Your task to perform on an android device: turn on airplane mode Image 0: 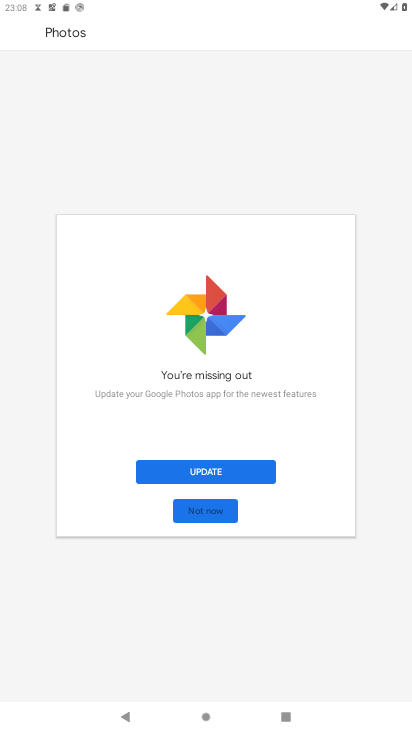
Step 0: press home button
Your task to perform on an android device: turn on airplane mode Image 1: 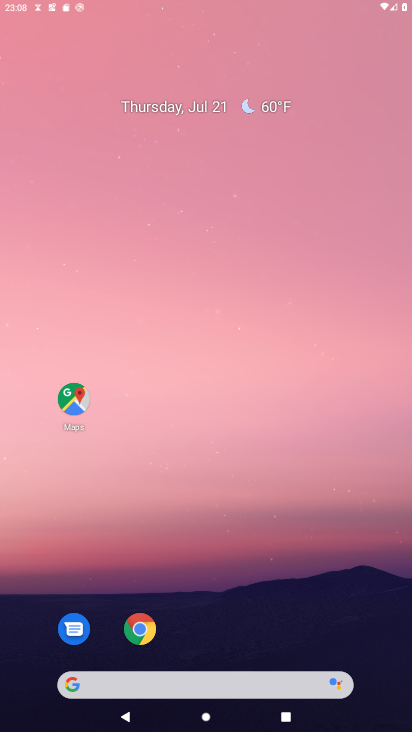
Step 1: drag from (225, 708) to (225, 260)
Your task to perform on an android device: turn on airplane mode Image 2: 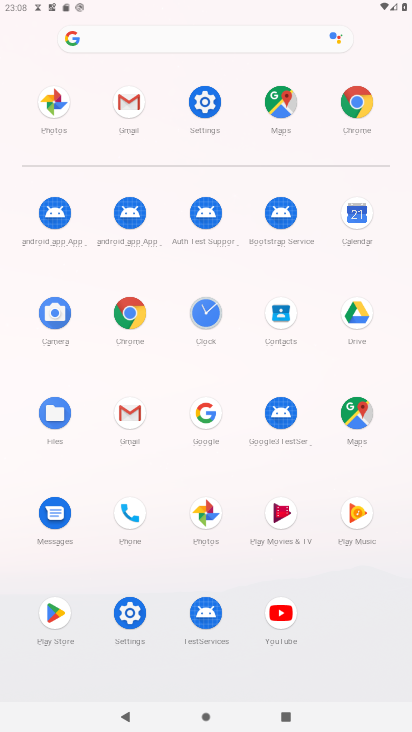
Step 2: click (206, 98)
Your task to perform on an android device: turn on airplane mode Image 3: 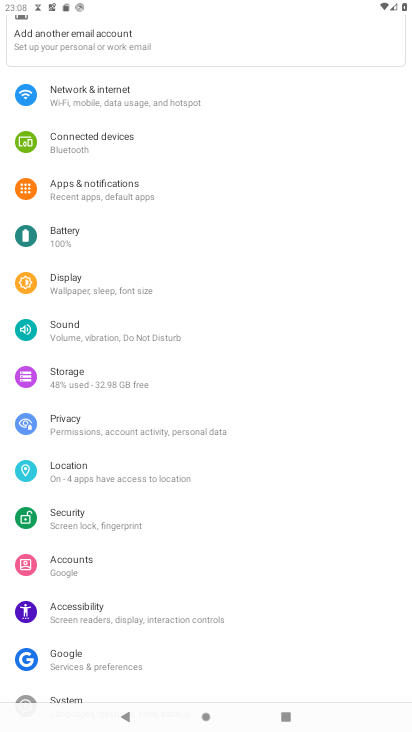
Step 3: click (120, 95)
Your task to perform on an android device: turn on airplane mode Image 4: 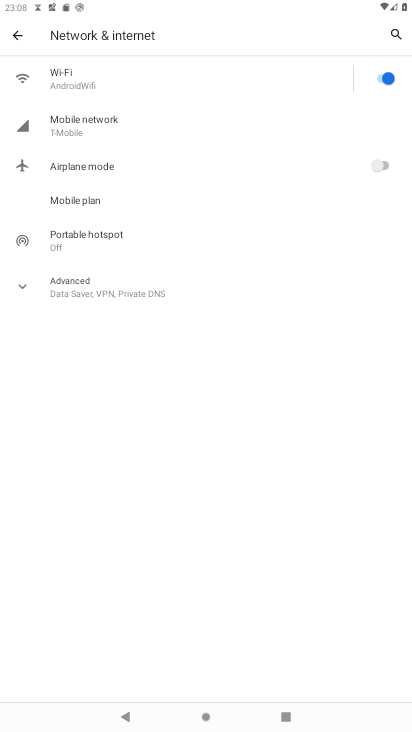
Step 4: click (383, 166)
Your task to perform on an android device: turn on airplane mode Image 5: 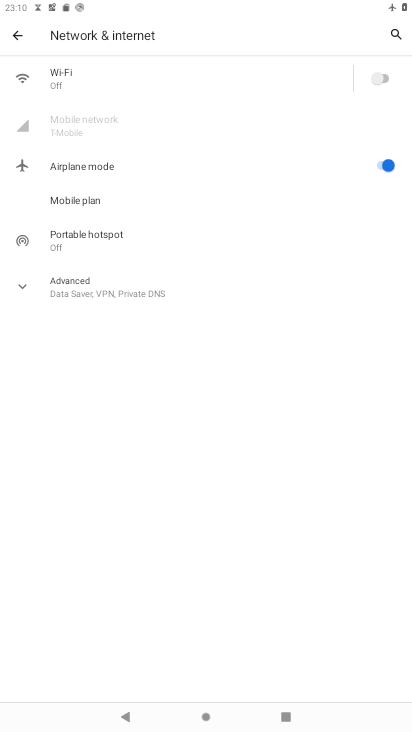
Step 5: task complete